Your task to perform on an android device: turn off priority inbox in the gmail app Image 0: 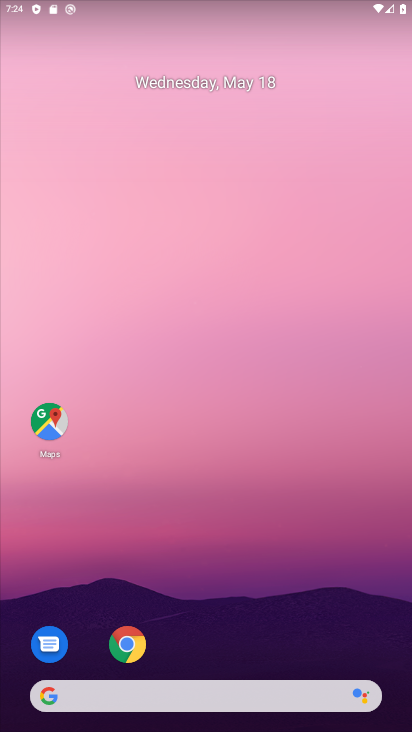
Step 0: drag from (242, 711) to (262, 167)
Your task to perform on an android device: turn off priority inbox in the gmail app Image 1: 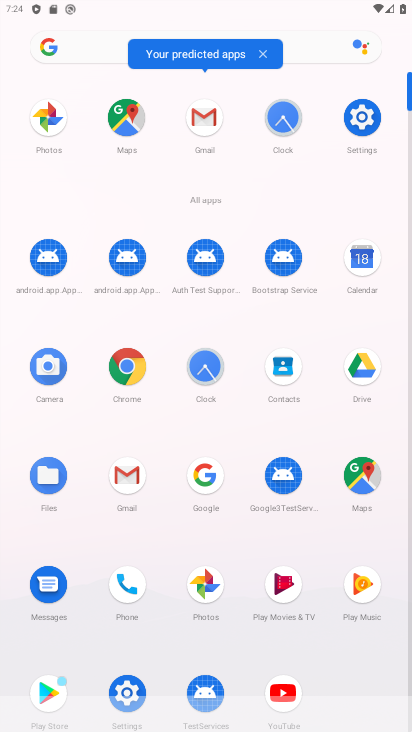
Step 1: click (201, 117)
Your task to perform on an android device: turn off priority inbox in the gmail app Image 2: 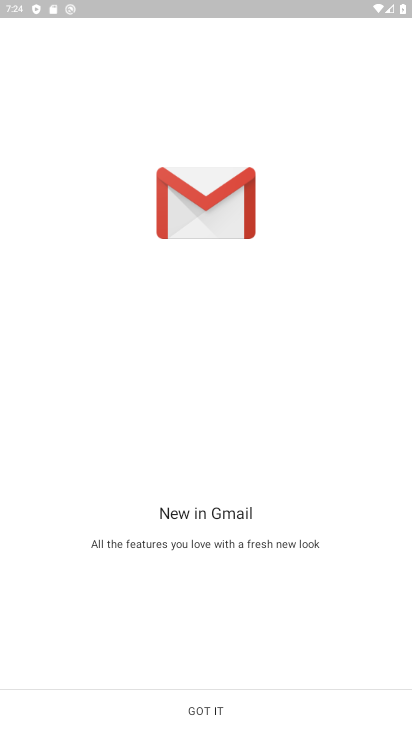
Step 2: click (217, 703)
Your task to perform on an android device: turn off priority inbox in the gmail app Image 3: 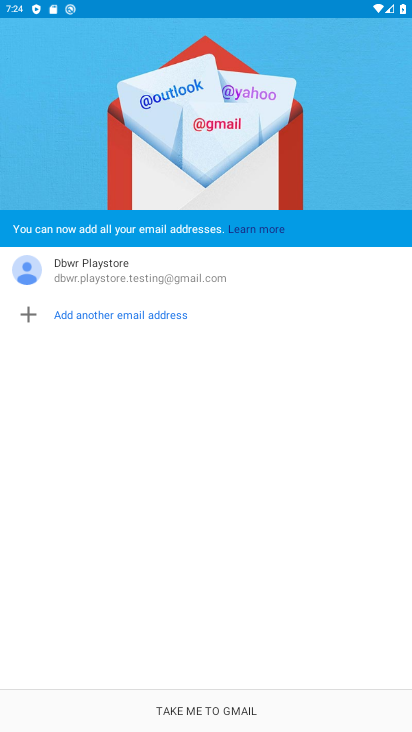
Step 3: click (194, 707)
Your task to perform on an android device: turn off priority inbox in the gmail app Image 4: 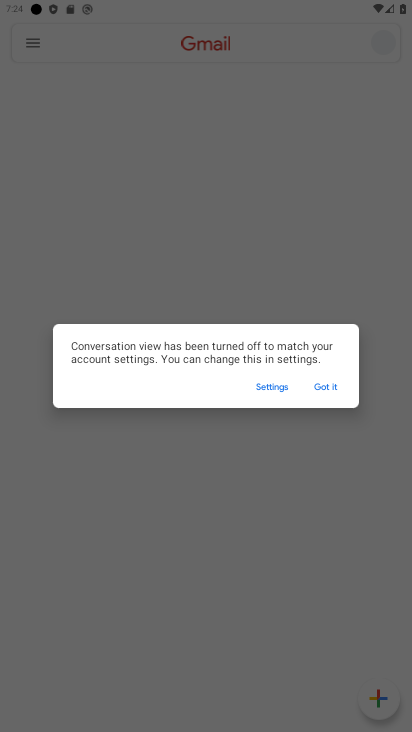
Step 4: click (218, 704)
Your task to perform on an android device: turn off priority inbox in the gmail app Image 5: 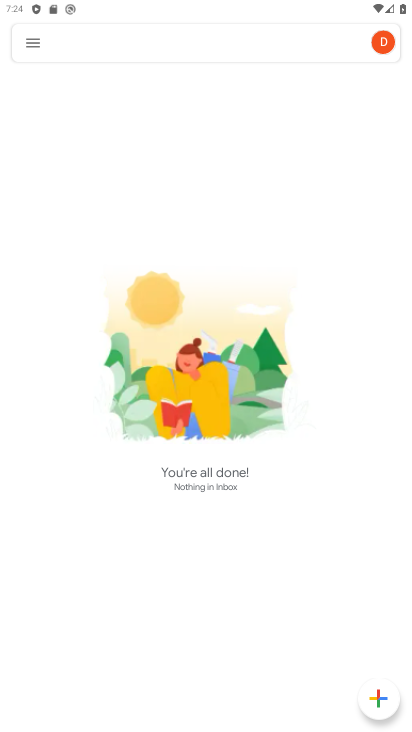
Step 5: click (38, 46)
Your task to perform on an android device: turn off priority inbox in the gmail app Image 6: 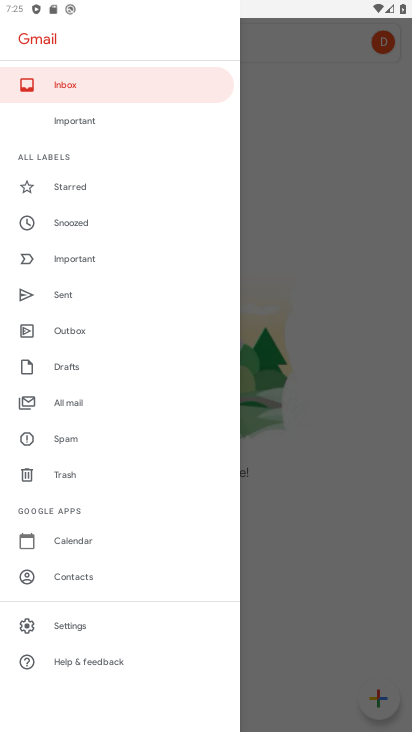
Step 6: click (62, 624)
Your task to perform on an android device: turn off priority inbox in the gmail app Image 7: 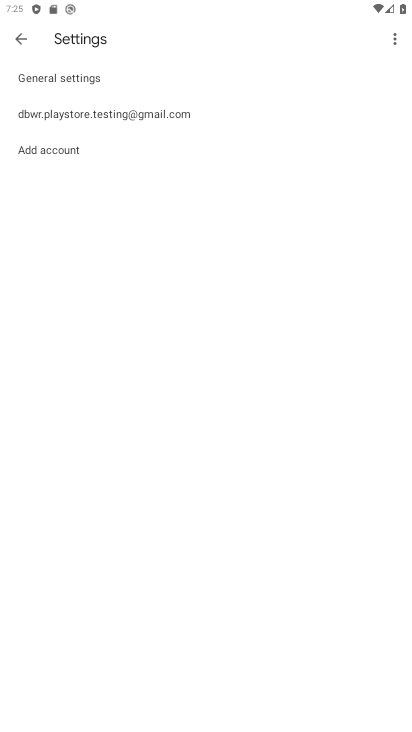
Step 7: click (92, 98)
Your task to perform on an android device: turn off priority inbox in the gmail app Image 8: 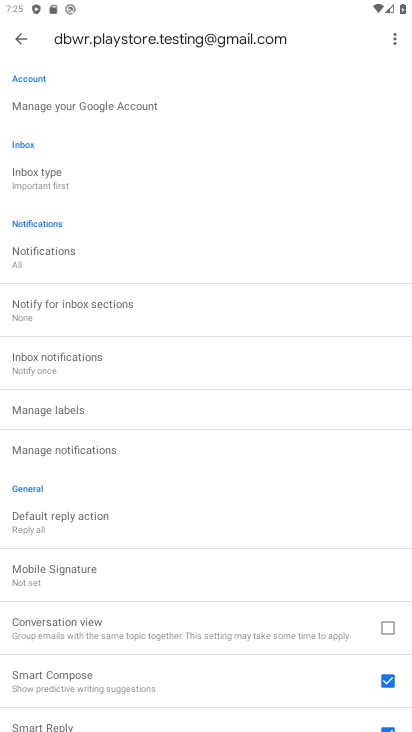
Step 8: drag from (139, 579) to (158, 543)
Your task to perform on an android device: turn off priority inbox in the gmail app Image 9: 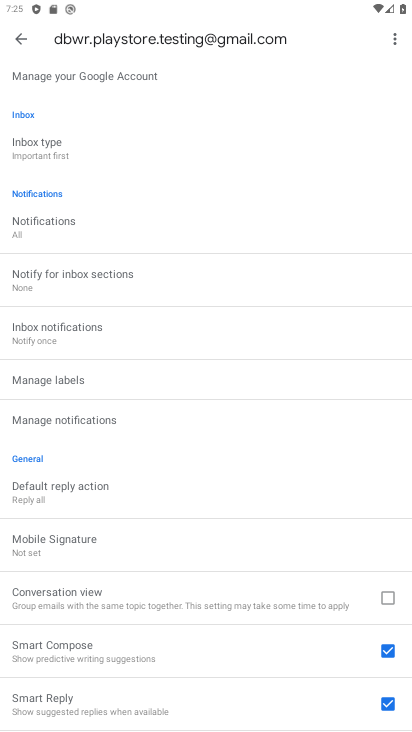
Step 9: click (77, 143)
Your task to perform on an android device: turn off priority inbox in the gmail app Image 10: 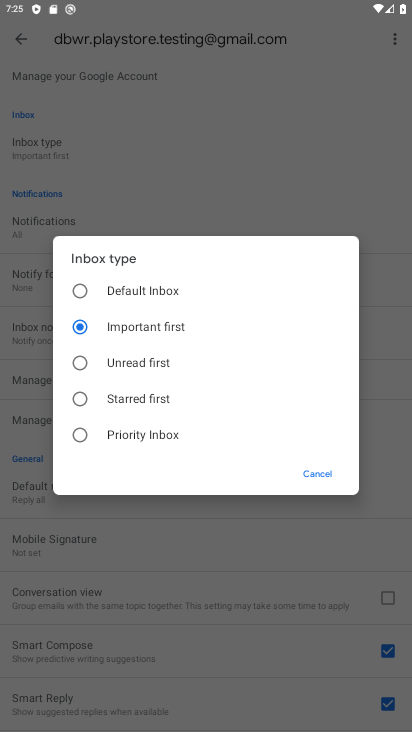
Step 10: task complete